Your task to perform on an android device: Go to display settings Image 0: 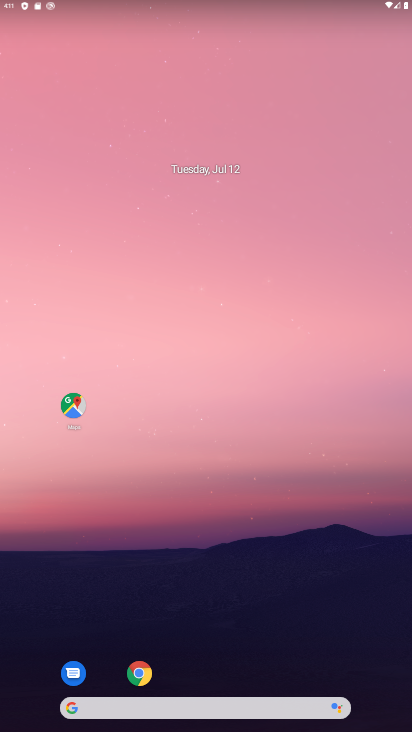
Step 0: drag from (228, 592) to (313, 2)
Your task to perform on an android device: Go to display settings Image 1: 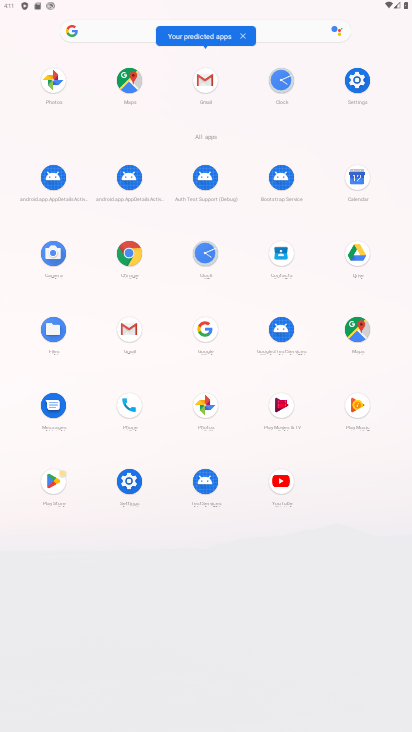
Step 1: click (354, 74)
Your task to perform on an android device: Go to display settings Image 2: 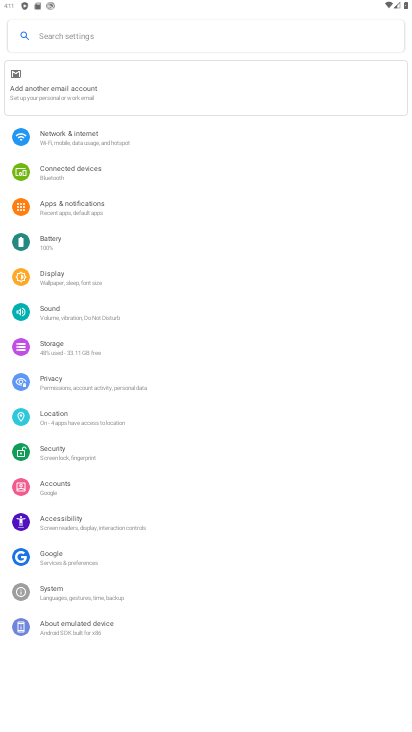
Step 2: click (79, 274)
Your task to perform on an android device: Go to display settings Image 3: 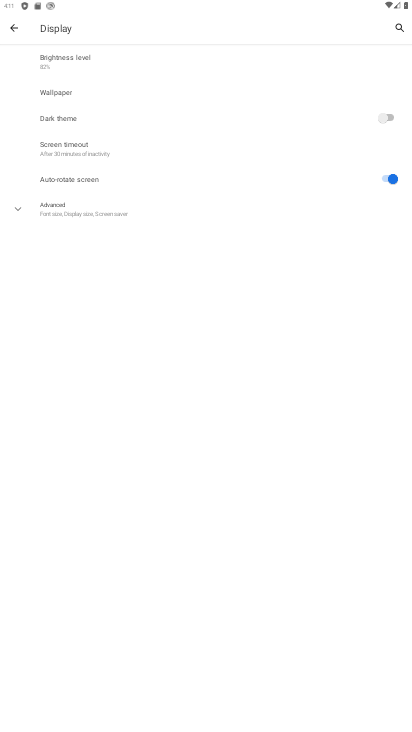
Step 3: click (86, 156)
Your task to perform on an android device: Go to display settings Image 4: 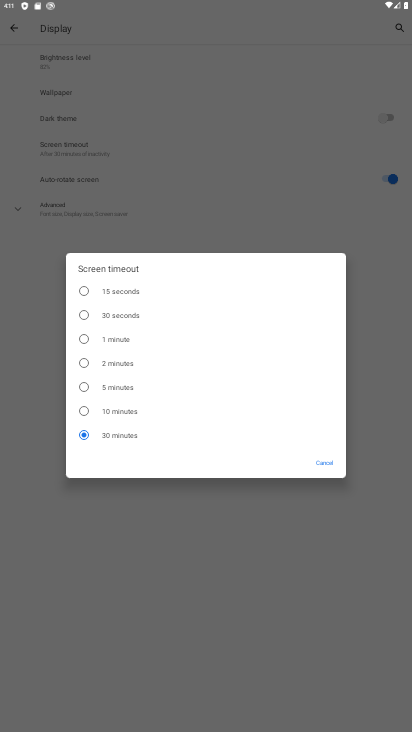
Step 4: task complete